Your task to perform on an android device: turn off improve location accuracy Image 0: 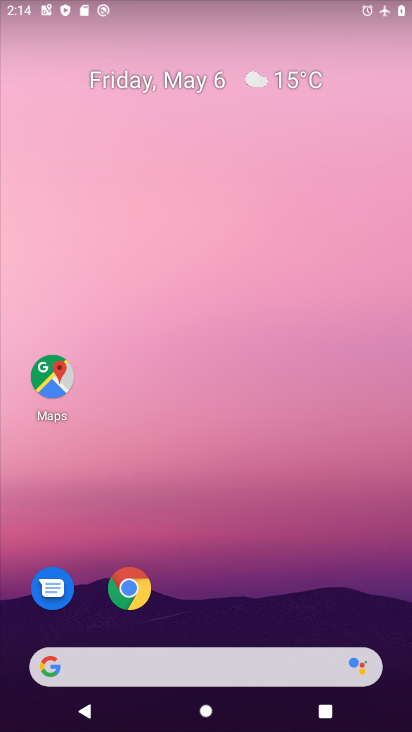
Step 0: drag from (193, 589) to (193, 392)
Your task to perform on an android device: turn off improve location accuracy Image 1: 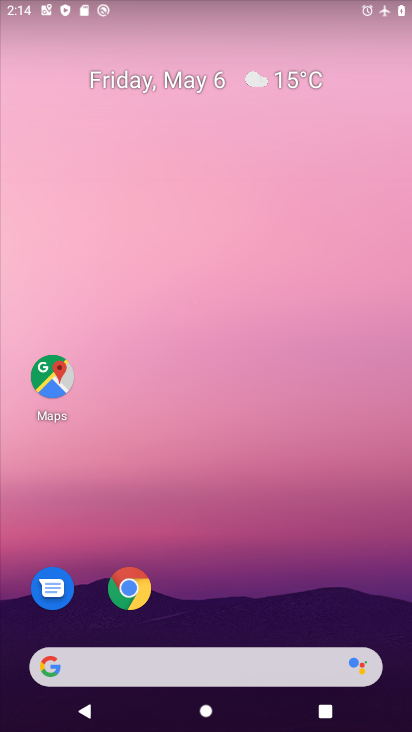
Step 1: drag from (205, 561) to (207, 293)
Your task to perform on an android device: turn off improve location accuracy Image 2: 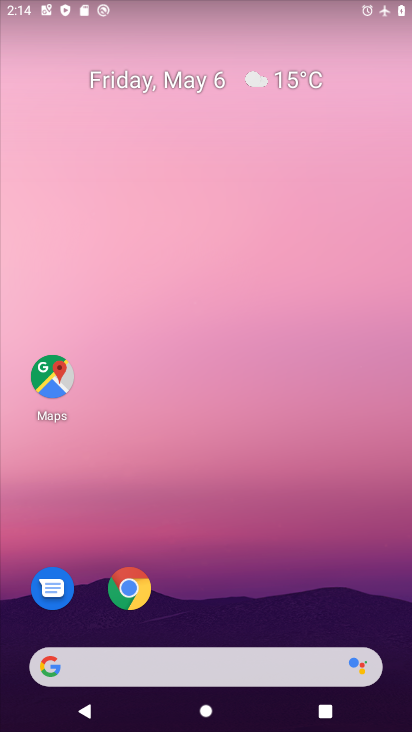
Step 2: drag from (204, 601) to (257, 126)
Your task to perform on an android device: turn off improve location accuracy Image 3: 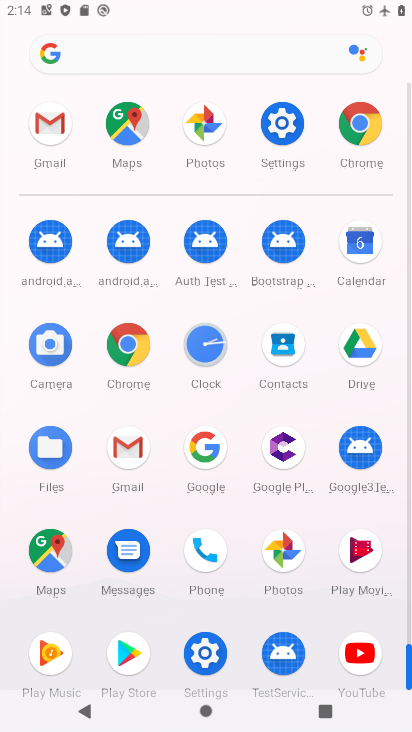
Step 3: click (194, 657)
Your task to perform on an android device: turn off improve location accuracy Image 4: 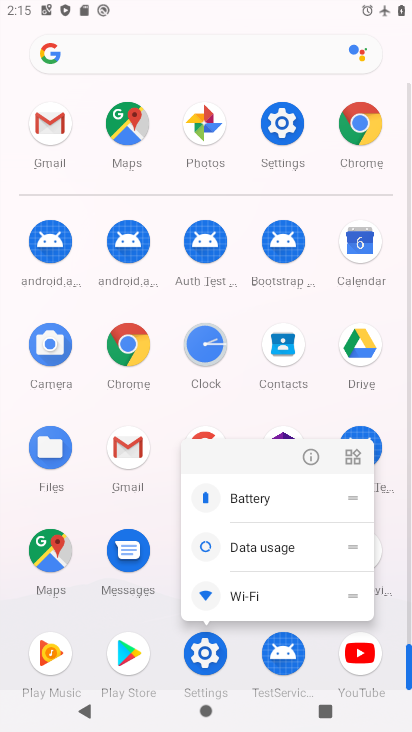
Step 4: click (308, 458)
Your task to perform on an android device: turn off improve location accuracy Image 5: 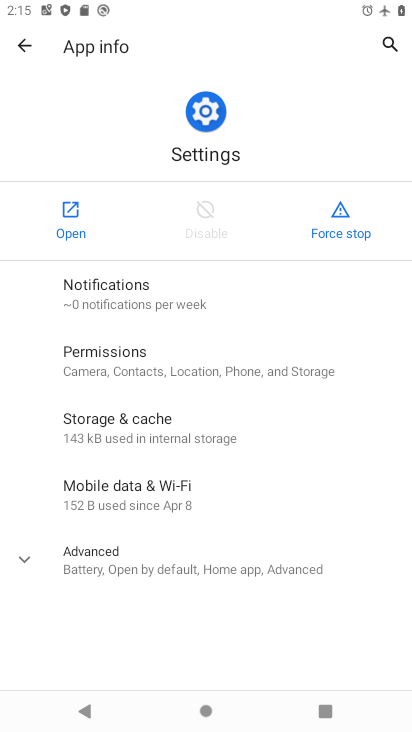
Step 5: click (66, 199)
Your task to perform on an android device: turn off improve location accuracy Image 6: 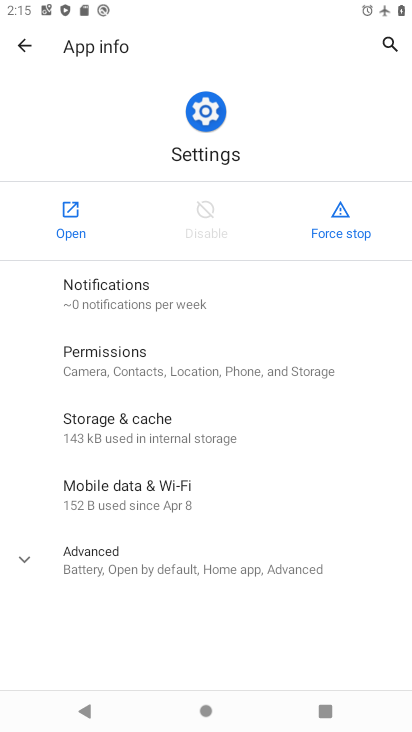
Step 6: click (66, 199)
Your task to perform on an android device: turn off improve location accuracy Image 7: 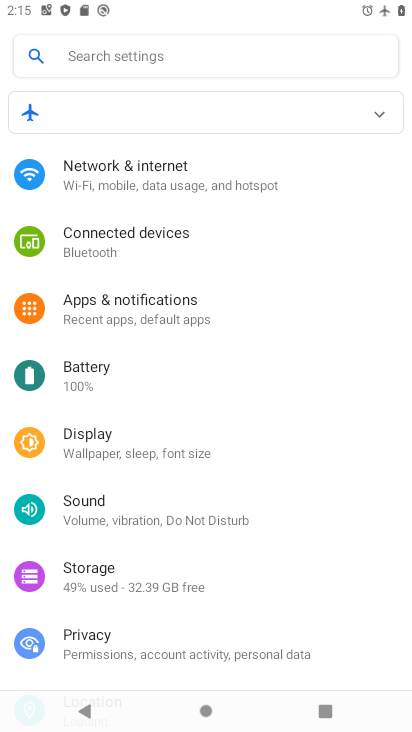
Step 7: drag from (143, 600) to (184, 206)
Your task to perform on an android device: turn off improve location accuracy Image 8: 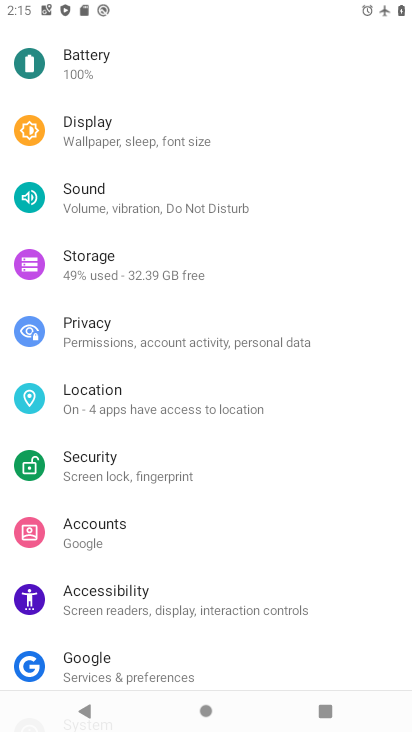
Step 8: click (131, 390)
Your task to perform on an android device: turn off improve location accuracy Image 9: 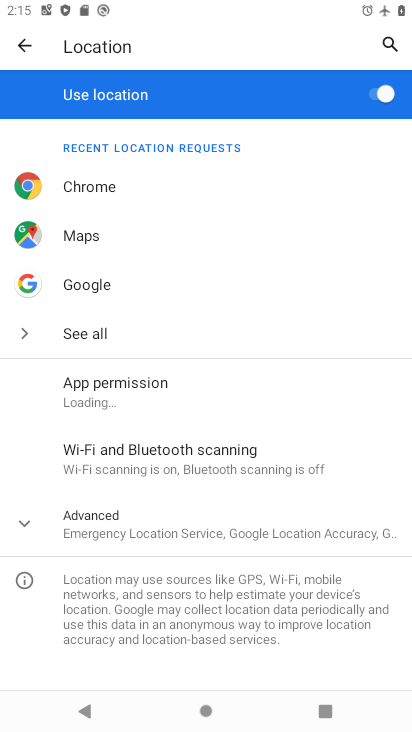
Step 9: drag from (132, 577) to (191, 366)
Your task to perform on an android device: turn off improve location accuracy Image 10: 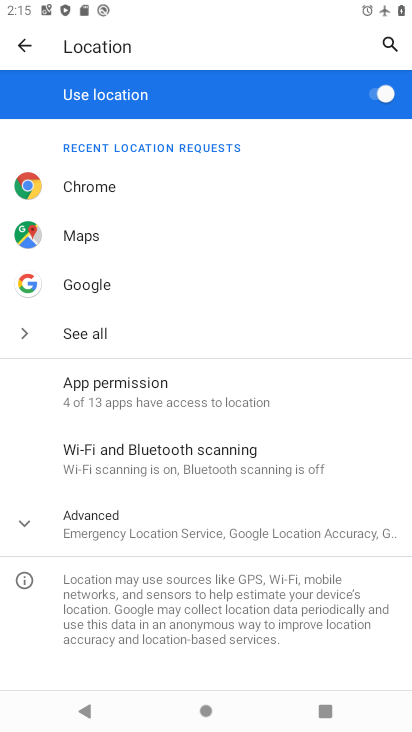
Step 10: click (166, 523)
Your task to perform on an android device: turn off improve location accuracy Image 11: 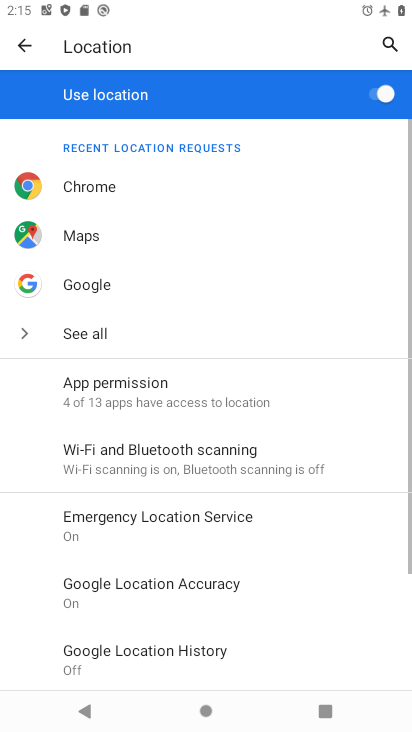
Step 11: drag from (213, 655) to (230, 370)
Your task to perform on an android device: turn off improve location accuracy Image 12: 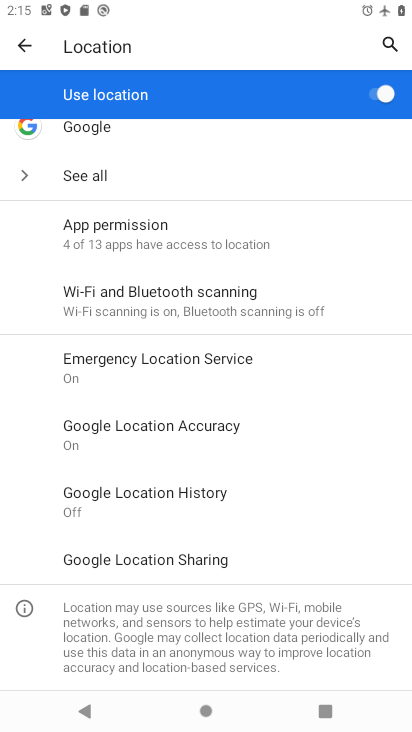
Step 12: click (177, 431)
Your task to perform on an android device: turn off improve location accuracy Image 13: 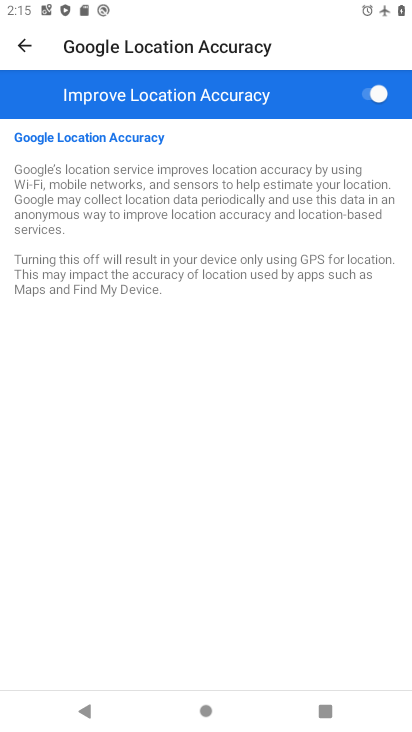
Step 13: drag from (215, 659) to (229, 307)
Your task to perform on an android device: turn off improve location accuracy Image 14: 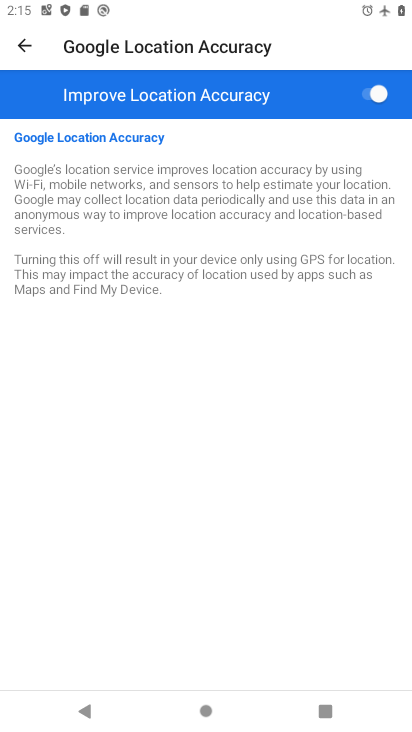
Step 14: click (369, 92)
Your task to perform on an android device: turn off improve location accuracy Image 15: 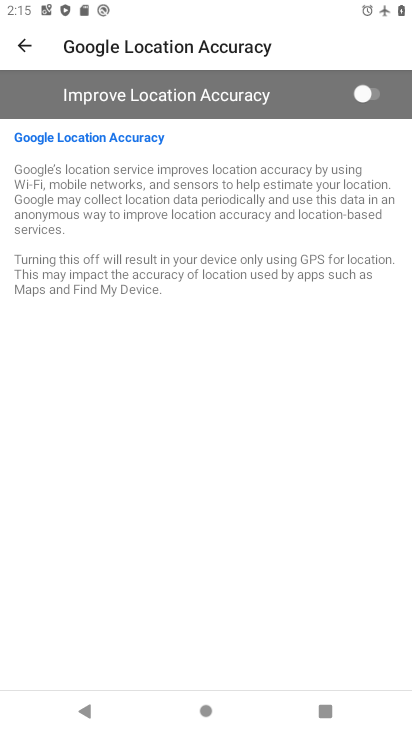
Step 15: task complete